Your task to perform on an android device: turn off translation in the chrome app Image 0: 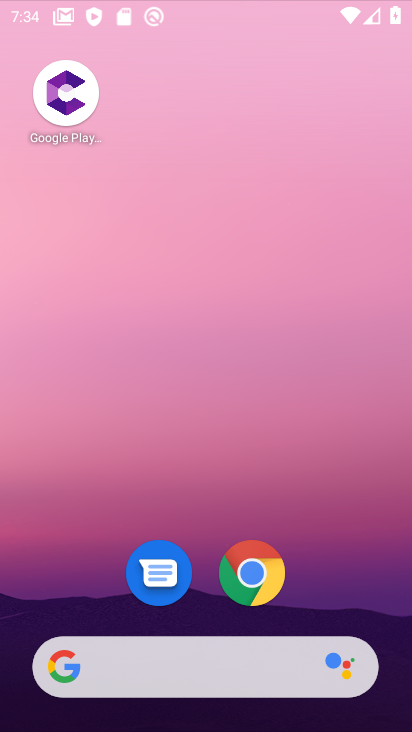
Step 0: drag from (357, 581) to (390, 29)
Your task to perform on an android device: turn off translation in the chrome app Image 1: 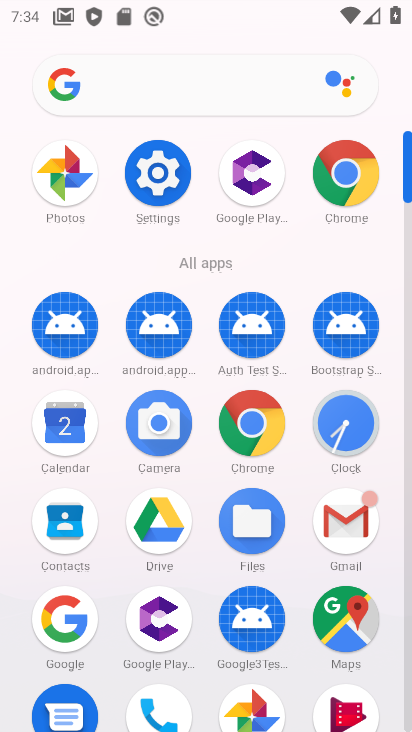
Step 1: click (361, 178)
Your task to perform on an android device: turn off translation in the chrome app Image 2: 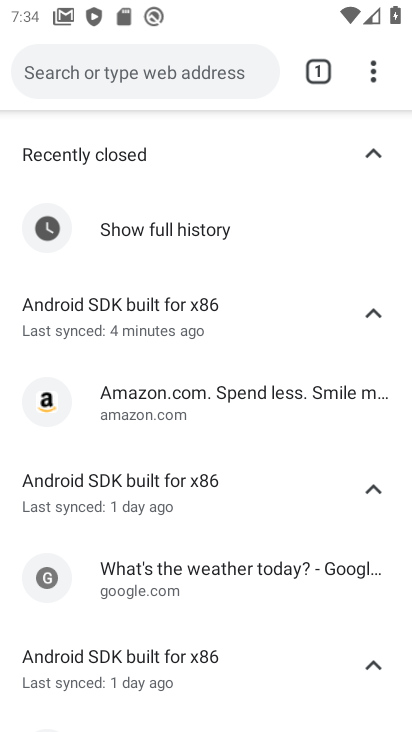
Step 2: drag from (381, 59) to (166, 597)
Your task to perform on an android device: turn off translation in the chrome app Image 3: 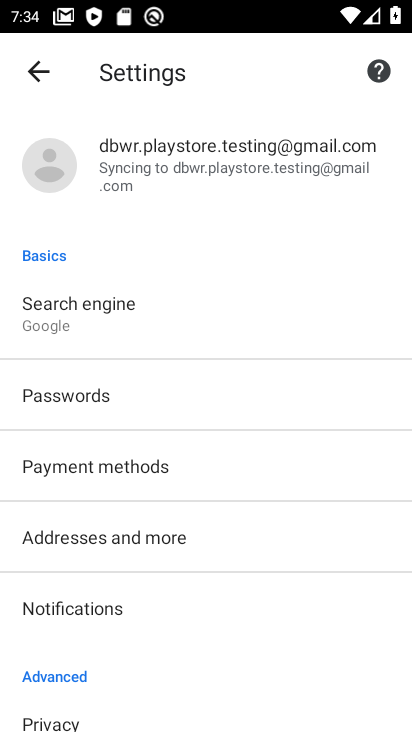
Step 3: drag from (166, 595) to (223, 176)
Your task to perform on an android device: turn off translation in the chrome app Image 4: 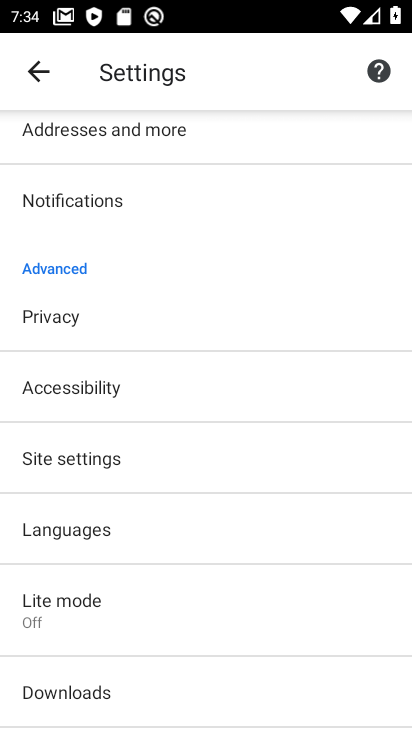
Step 4: click (99, 539)
Your task to perform on an android device: turn off translation in the chrome app Image 5: 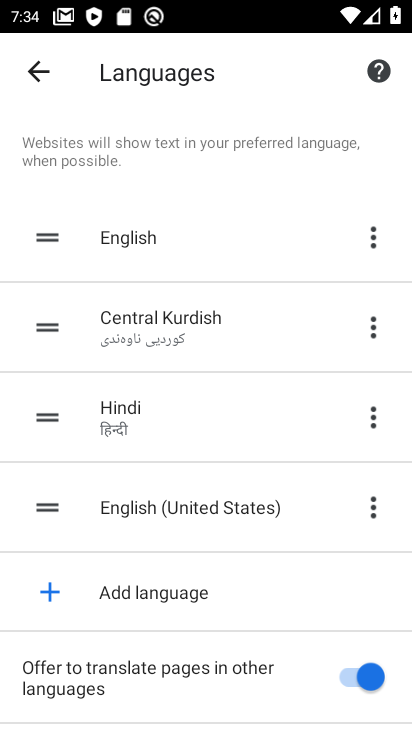
Step 5: drag from (163, 601) to (261, 215)
Your task to perform on an android device: turn off translation in the chrome app Image 6: 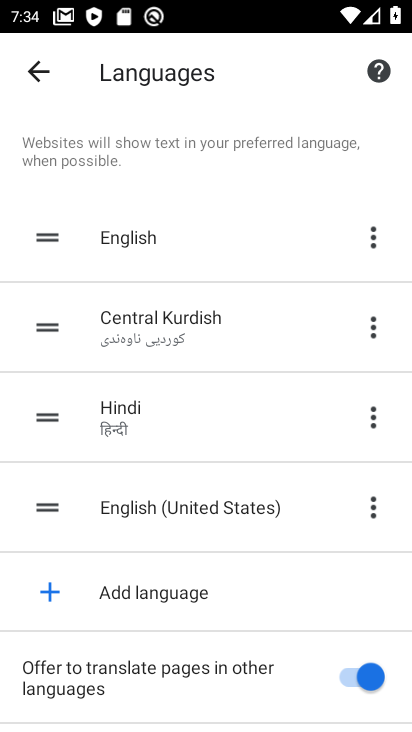
Step 6: click (358, 673)
Your task to perform on an android device: turn off translation in the chrome app Image 7: 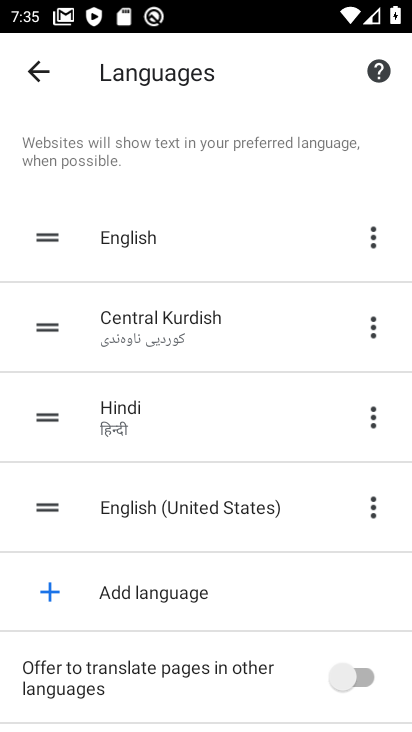
Step 7: task complete